Your task to perform on an android device: snooze an email in the gmail app Image 0: 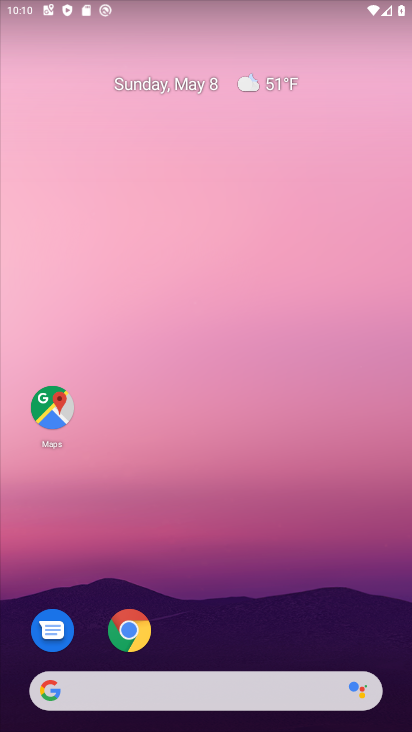
Step 0: drag from (373, 641) to (315, 62)
Your task to perform on an android device: snooze an email in the gmail app Image 1: 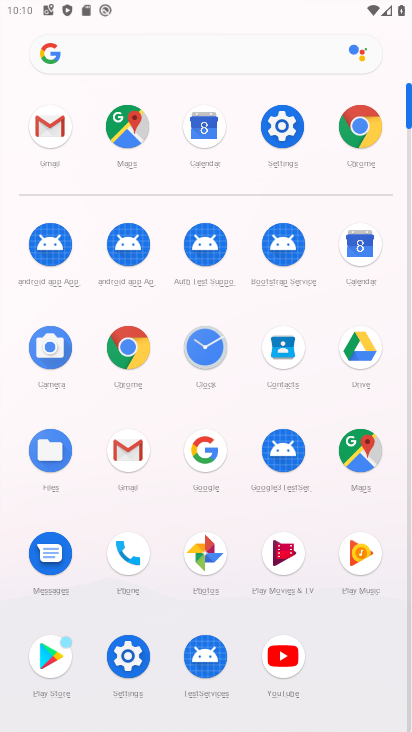
Step 1: click (134, 447)
Your task to perform on an android device: snooze an email in the gmail app Image 2: 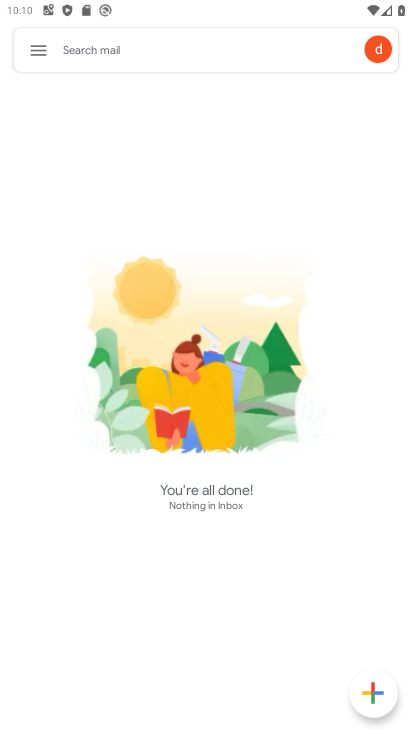
Step 2: click (29, 53)
Your task to perform on an android device: snooze an email in the gmail app Image 3: 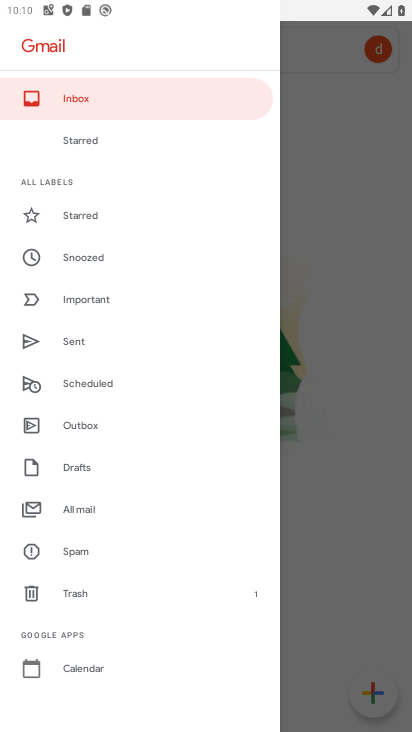
Step 3: click (109, 254)
Your task to perform on an android device: snooze an email in the gmail app Image 4: 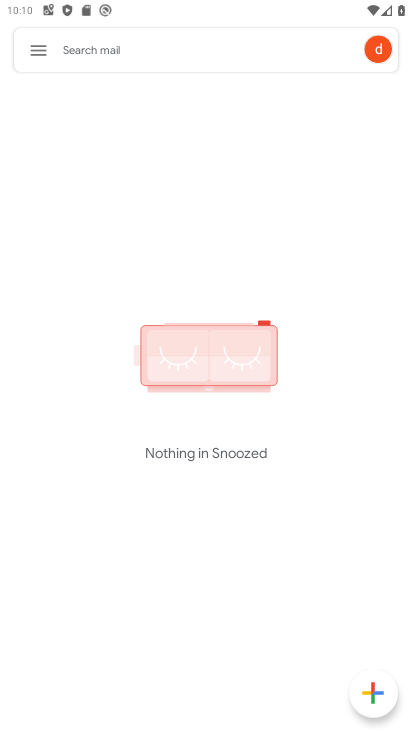
Step 4: click (33, 54)
Your task to perform on an android device: snooze an email in the gmail app Image 5: 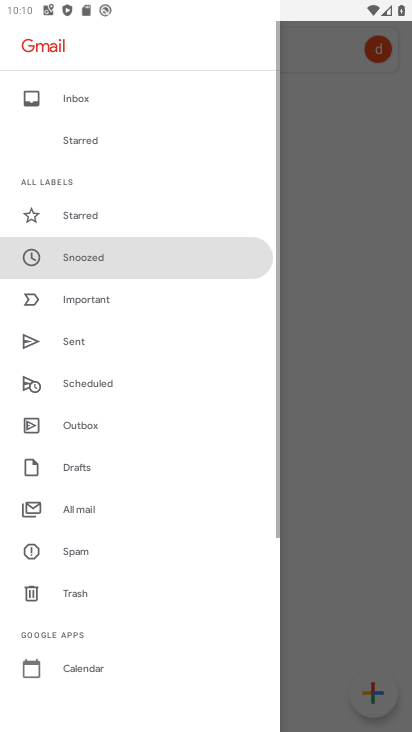
Step 5: click (102, 92)
Your task to perform on an android device: snooze an email in the gmail app Image 6: 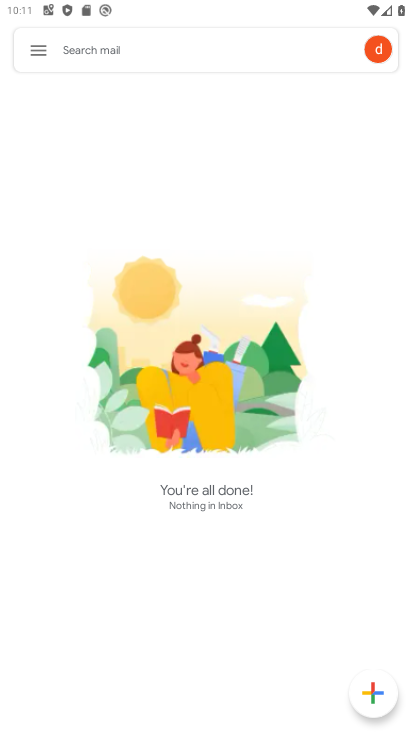
Step 6: task complete